Your task to perform on an android device: Go to Android settings Image 0: 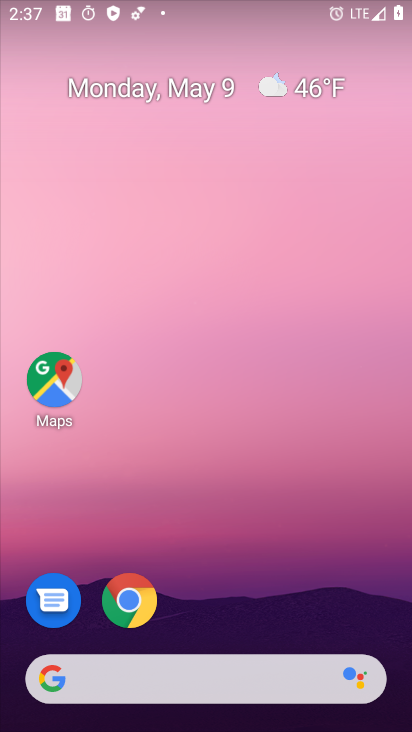
Step 0: drag from (200, 666) to (211, 221)
Your task to perform on an android device: Go to Android settings Image 1: 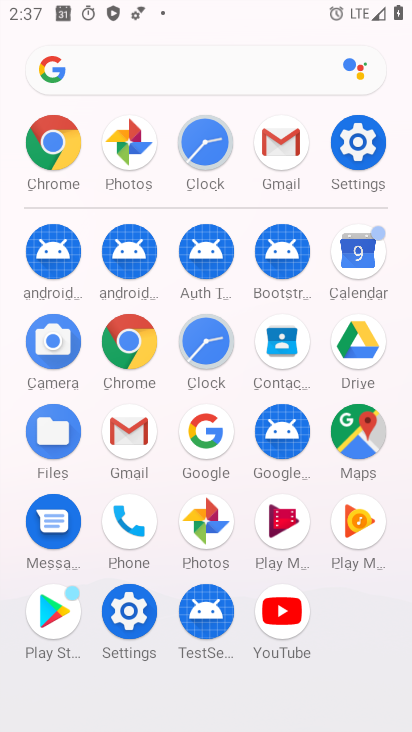
Step 1: click (117, 620)
Your task to perform on an android device: Go to Android settings Image 2: 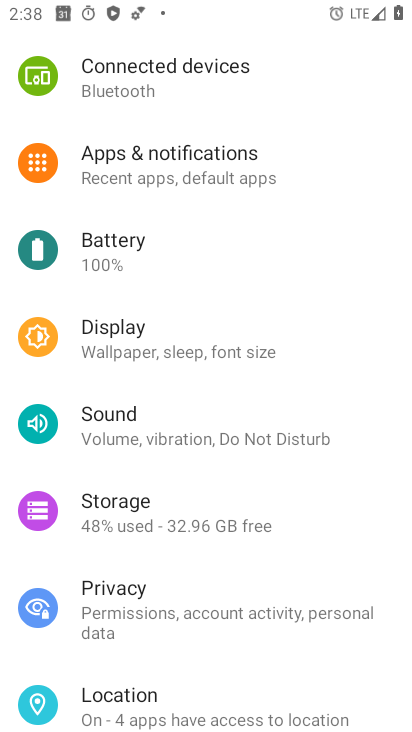
Step 2: task complete